Your task to perform on an android device: delete browsing data in the chrome app Image 0: 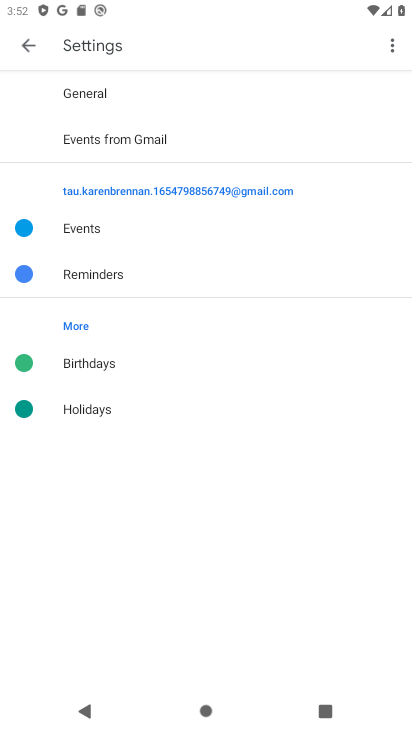
Step 0: press home button
Your task to perform on an android device: delete browsing data in the chrome app Image 1: 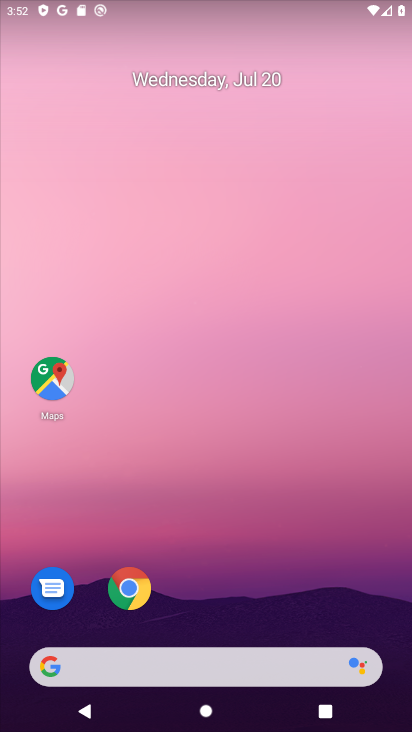
Step 1: click (125, 577)
Your task to perform on an android device: delete browsing data in the chrome app Image 2: 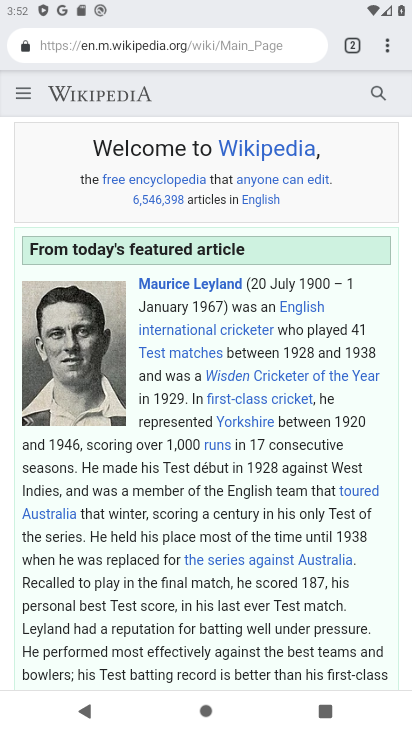
Step 2: click (399, 44)
Your task to perform on an android device: delete browsing data in the chrome app Image 3: 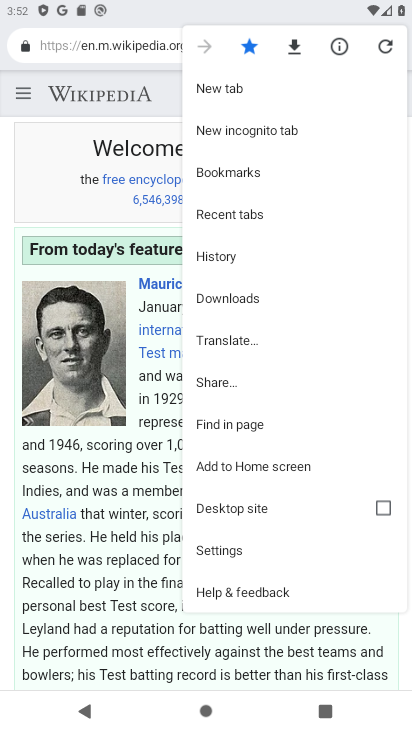
Step 3: click (212, 263)
Your task to perform on an android device: delete browsing data in the chrome app Image 4: 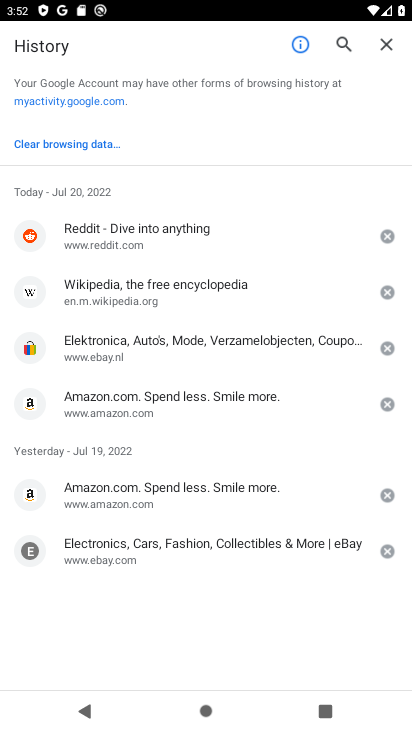
Step 4: click (55, 168)
Your task to perform on an android device: delete browsing data in the chrome app Image 5: 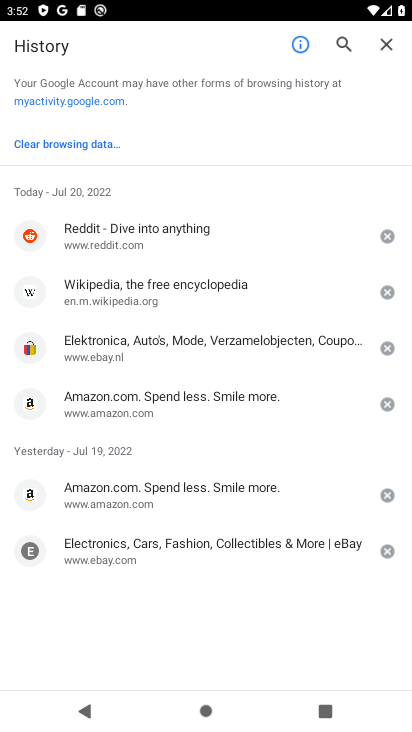
Step 5: click (41, 145)
Your task to perform on an android device: delete browsing data in the chrome app Image 6: 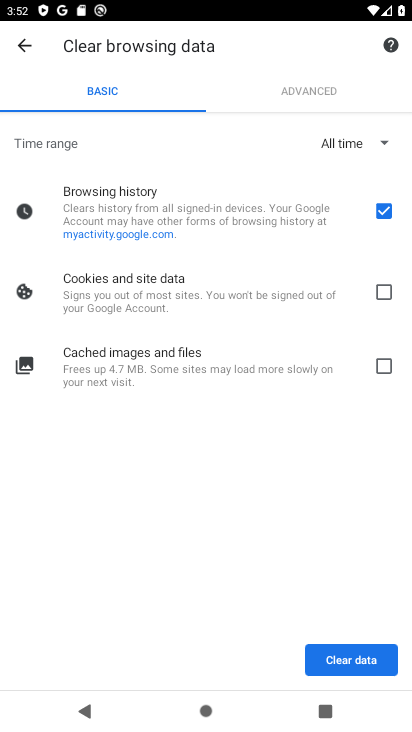
Step 6: click (333, 665)
Your task to perform on an android device: delete browsing data in the chrome app Image 7: 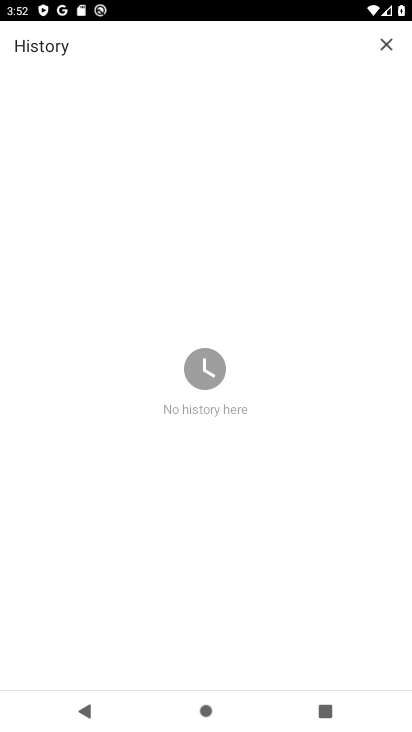
Step 7: task complete